Your task to perform on an android device: Go to sound settings Image 0: 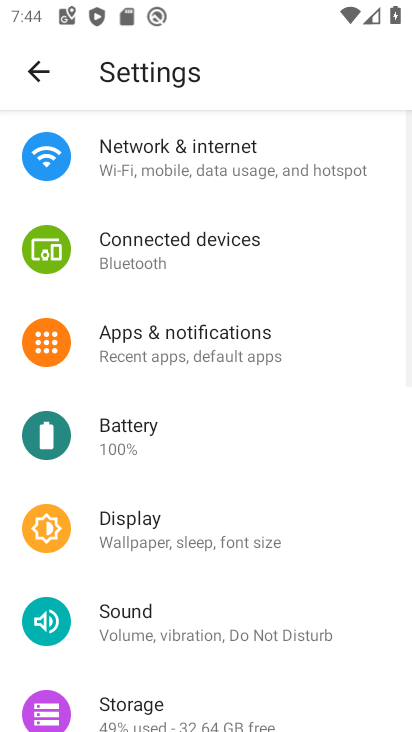
Step 0: press home button
Your task to perform on an android device: Go to sound settings Image 1: 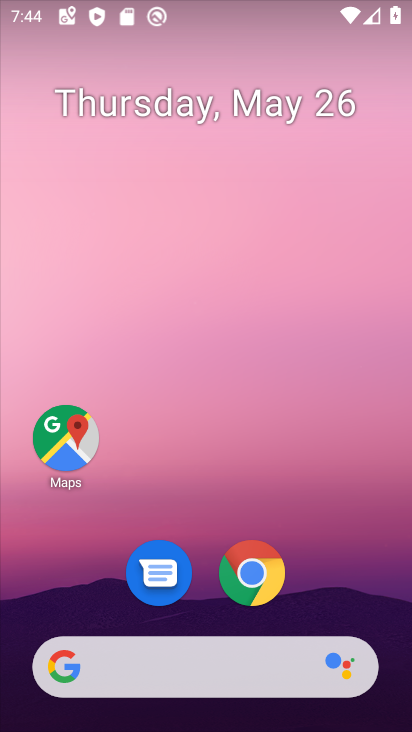
Step 1: drag from (360, 540) to (297, 72)
Your task to perform on an android device: Go to sound settings Image 2: 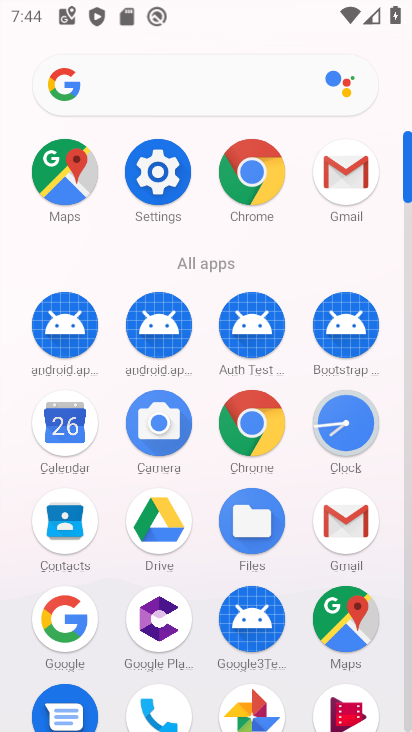
Step 2: click (159, 171)
Your task to perform on an android device: Go to sound settings Image 3: 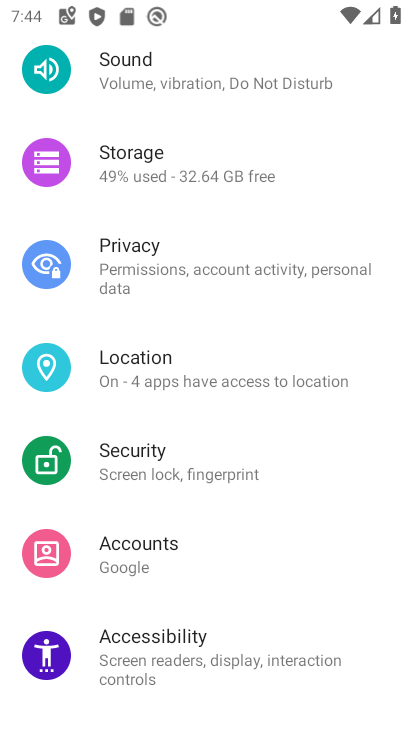
Step 3: drag from (302, 589) to (310, 729)
Your task to perform on an android device: Go to sound settings Image 4: 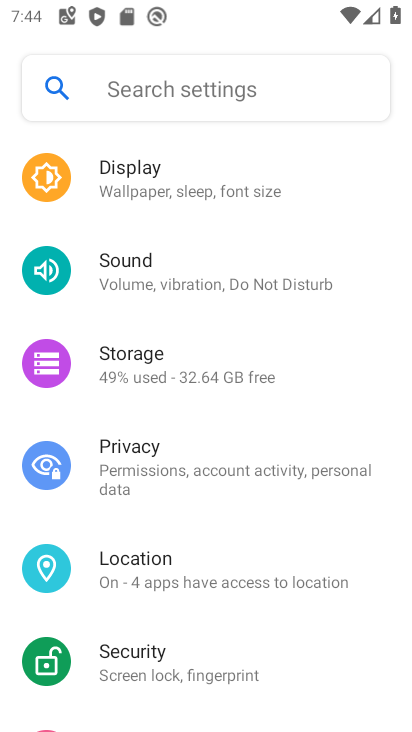
Step 4: click (152, 265)
Your task to perform on an android device: Go to sound settings Image 5: 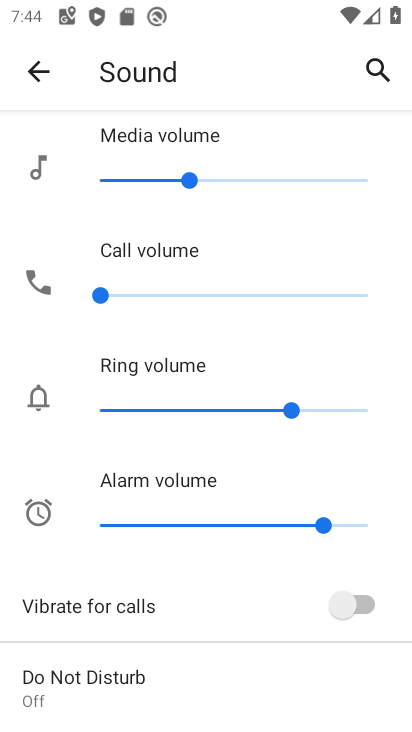
Step 5: task complete